Your task to perform on an android device: Open location settings Image 0: 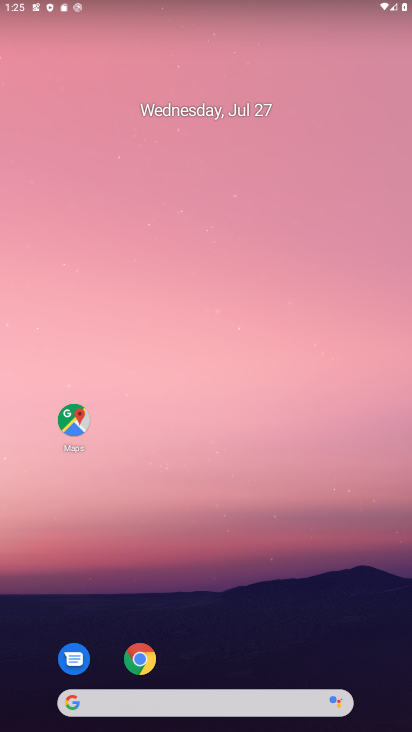
Step 0: drag from (282, 496) to (232, 88)
Your task to perform on an android device: Open location settings Image 1: 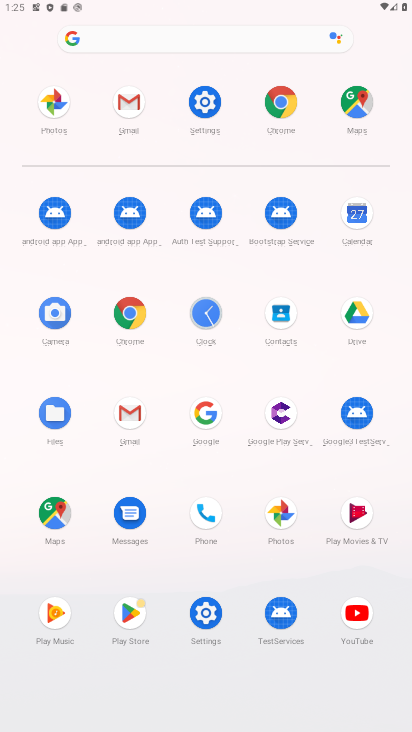
Step 1: click (212, 101)
Your task to perform on an android device: Open location settings Image 2: 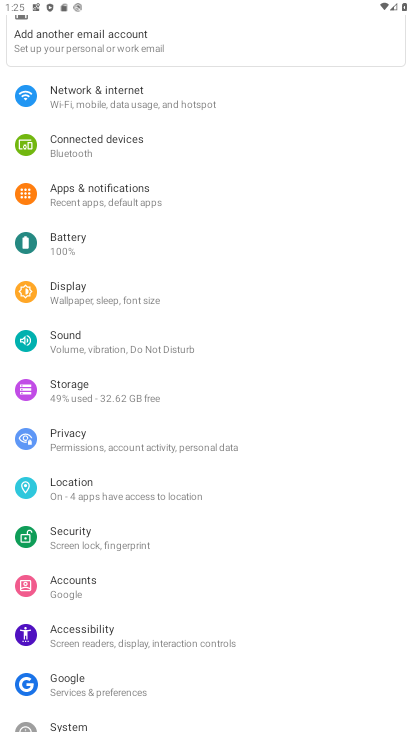
Step 2: click (127, 487)
Your task to perform on an android device: Open location settings Image 3: 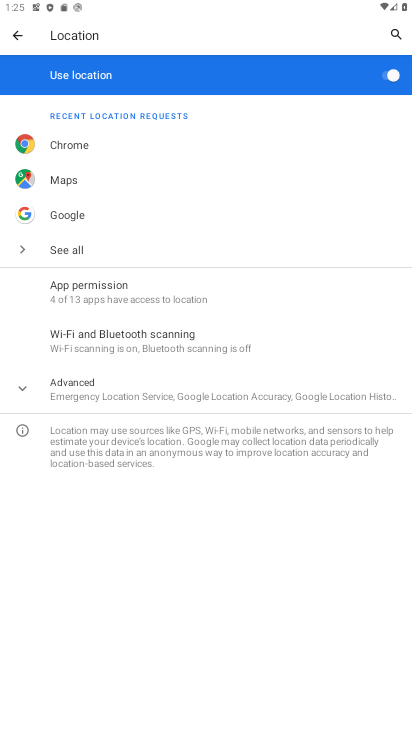
Step 3: task complete